Your task to perform on an android device: star an email in the gmail app Image 0: 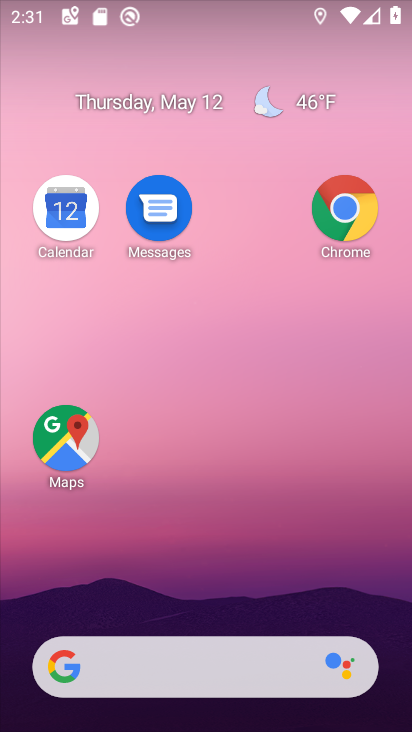
Step 0: drag from (196, 576) to (252, 36)
Your task to perform on an android device: star an email in the gmail app Image 1: 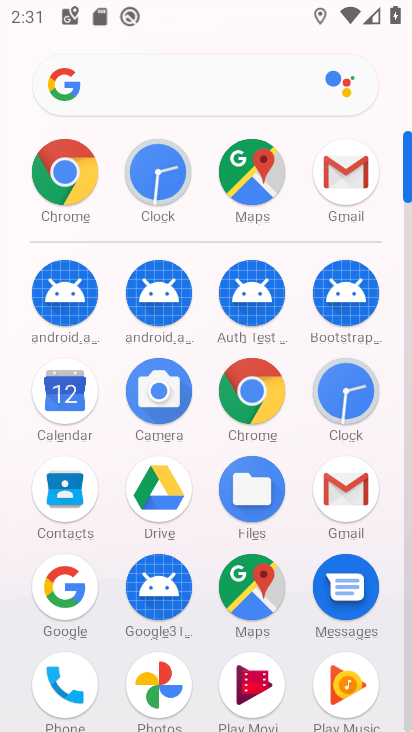
Step 1: click (341, 503)
Your task to perform on an android device: star an email in the gmail app Image 2: 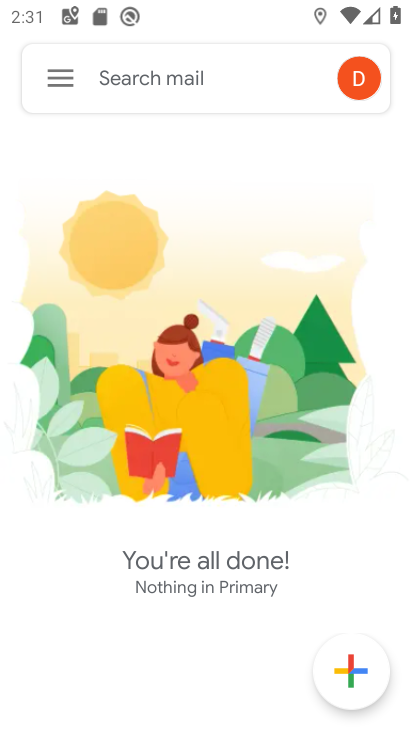
Step 2: click (49, 89)
Your task to perform on an android device: star an email in the gmail app Image 3: 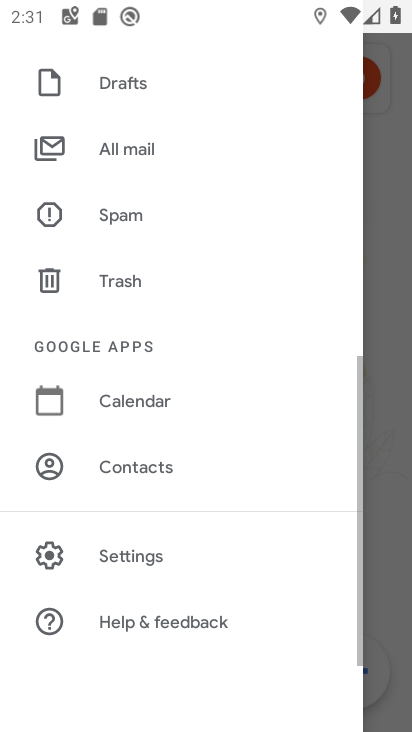
Step 3: drag from (194, 263) to (262, 660)
Your task to perform on an android device: star an email in the gmail app Image 4: 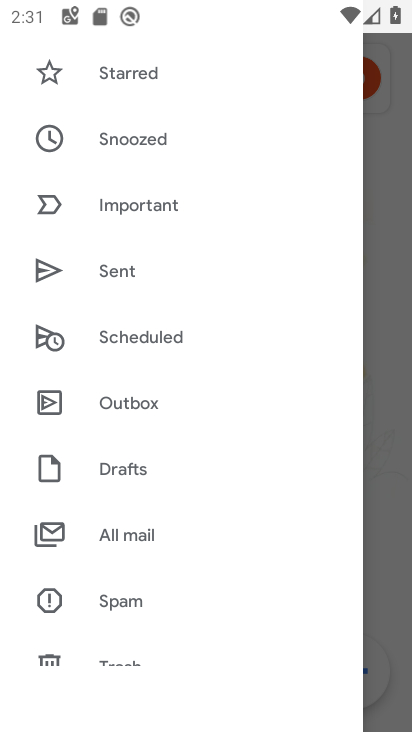
Step 4: click (165, 79)
Your task to perform on an android device: star an email in the gmail app Image 5: 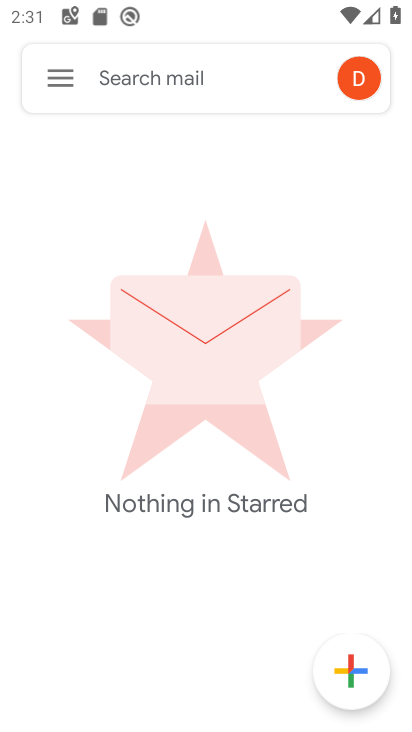
Step 5: task complete